Your task to perform on an android device: turn off data saver in the chrome app Image 0: 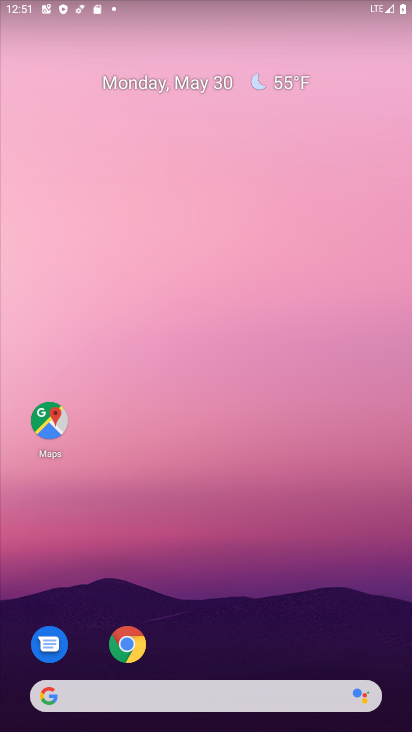
Step 0: drag from (269, 631) to (184, 0)
Your task to perform on an android device: turn off data saver in the chrome app Image 1: 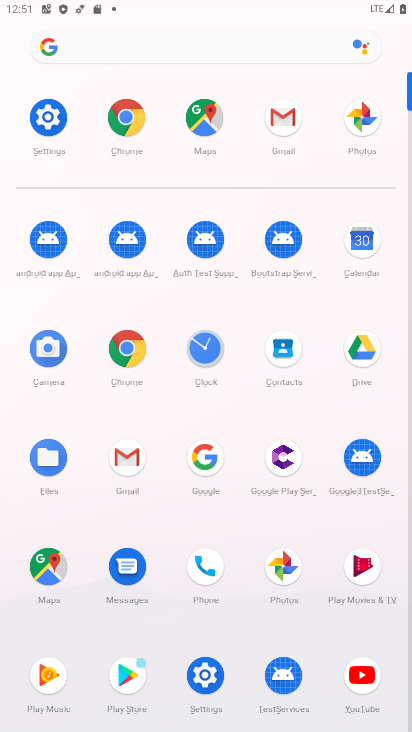
Step 1: click (131, 117)
Your task to perform on an android device: turn off data saver in the chrome app Image 2: 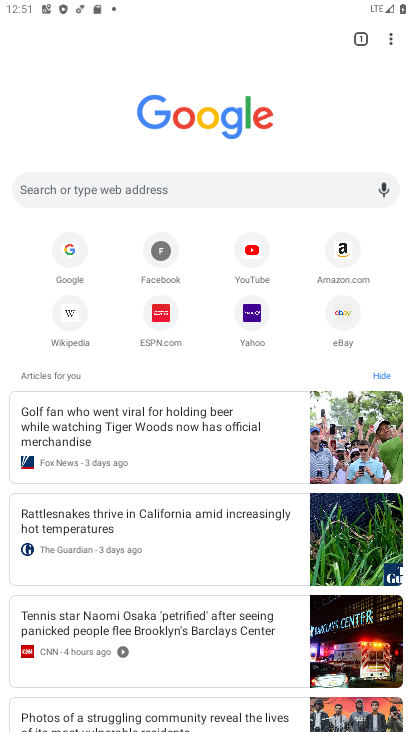
Step 2: click (398, 51)
Your task to perform on an android device: turn off data saver in the chrome app Image 3: 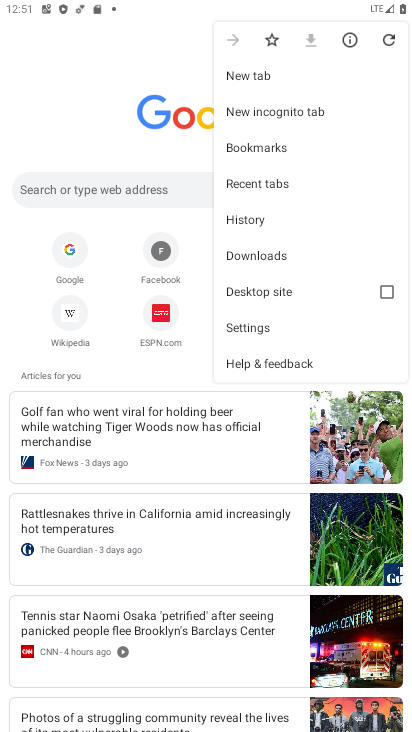
Step 3: click (263, 330)
Your task to perform on an android device: turn off data saver in the chrome app Image 4: 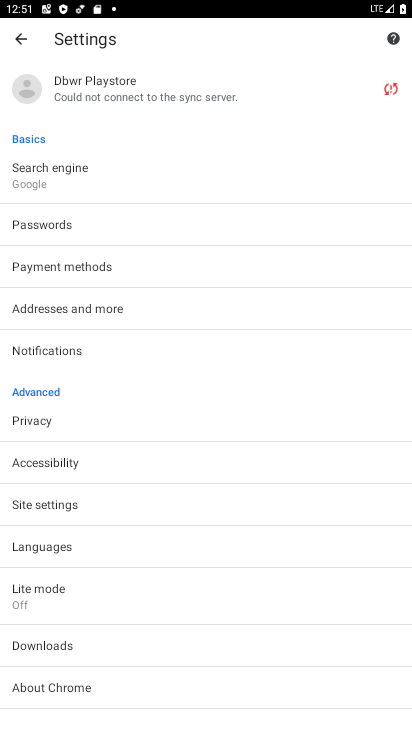
Step 4: click (156, 586)
Your task to perform on an android device: turn off data saver in the chrome app Image 5: 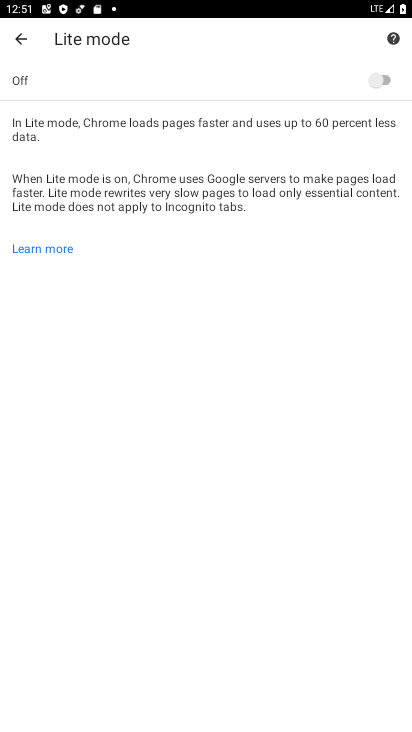
Step 5: task complete